Your task to perform on an android device: turn on location history Image 0: 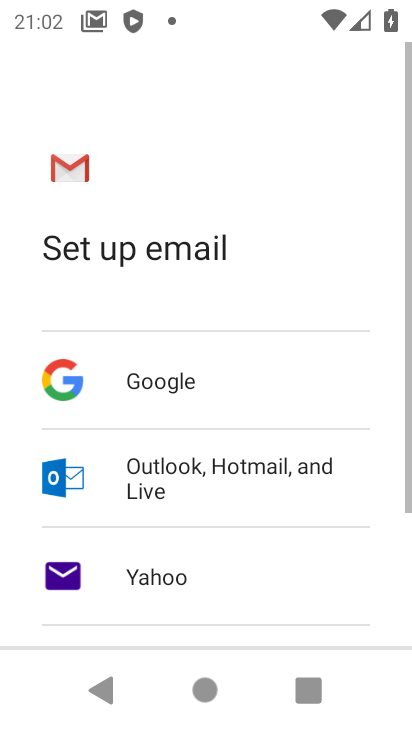
Step 0: press home button
Your task to perform on an android device: turn on location history Image 1: 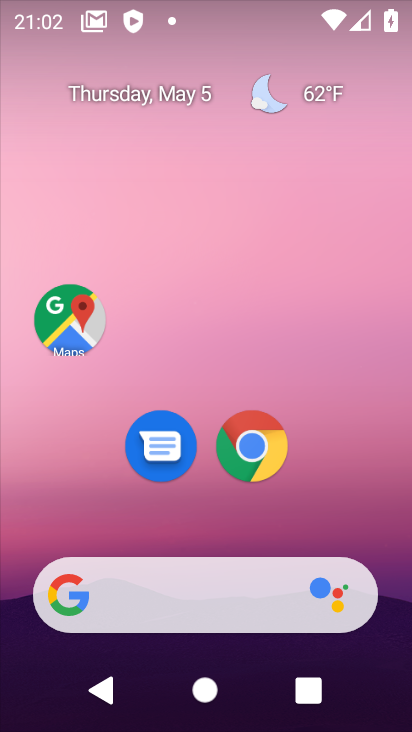
Step 1: drag from (303, 628) to (334, 95)
Your task to perform on an android device: turn on location history Image 2: 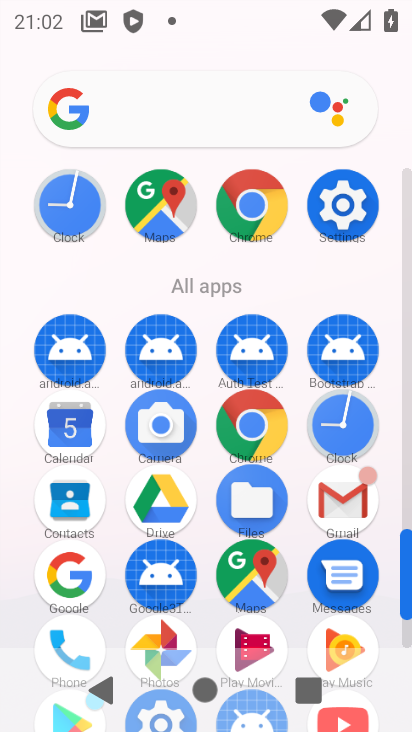
Step 2: click (335, 217)
Your task to perform on an android device: turn on location history Image 3: 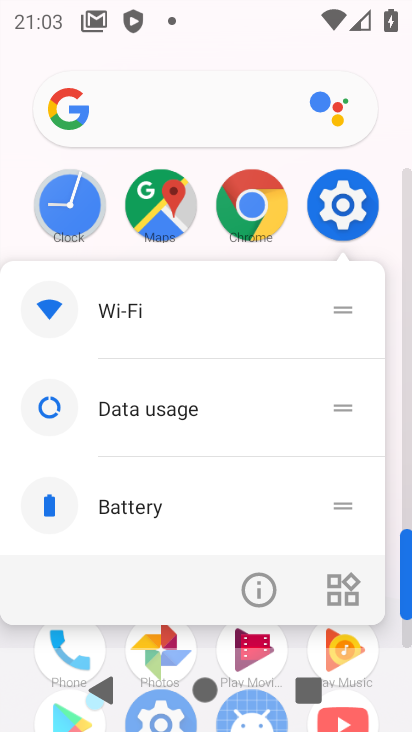
Step 3: click (351, 191)
Your task to perform on an android device: turn on location history Image 4: 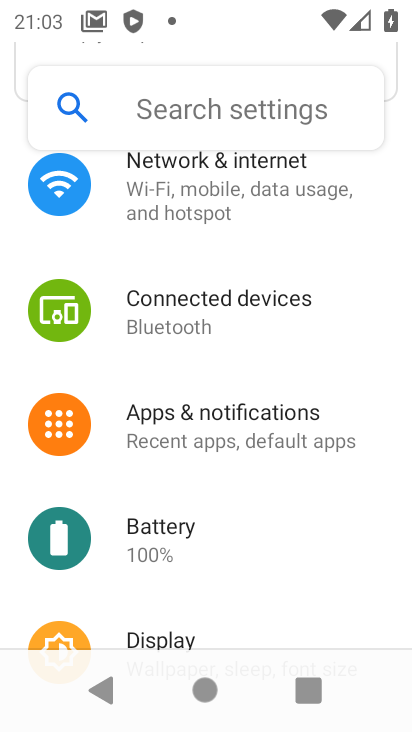
Step 4: click (215, 111)
Your task to perform on an android device: turn on location history Image 5: 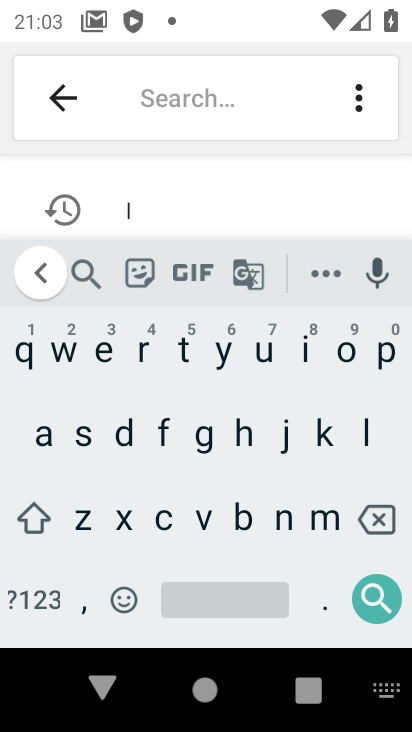
Step 5: click (227, 220)
Your task to perform on an android device: turn on location history Image 6: 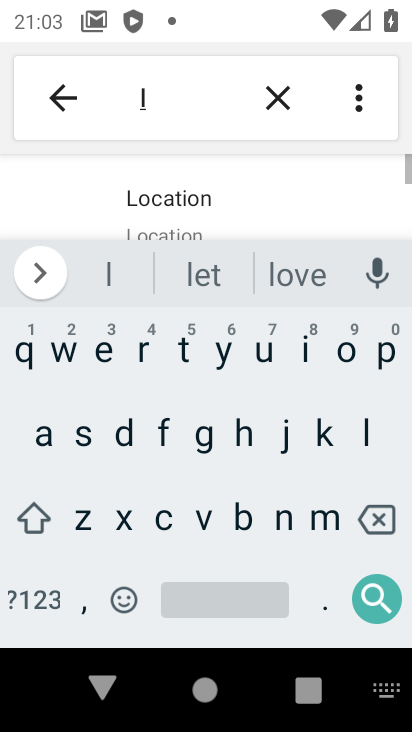
Step 6: click (217, 213)
Your task to perform on an android device: turn on location history Image 7: 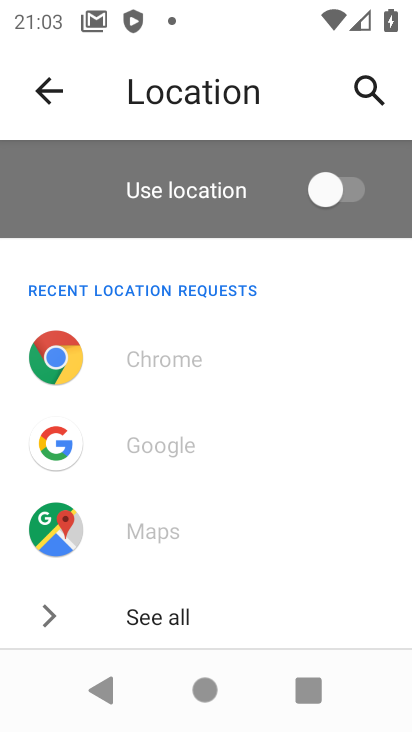
Step 7: drag from (200, 532) to (258, 279)
Your task to perform on an android device: turn on location history Image 8: 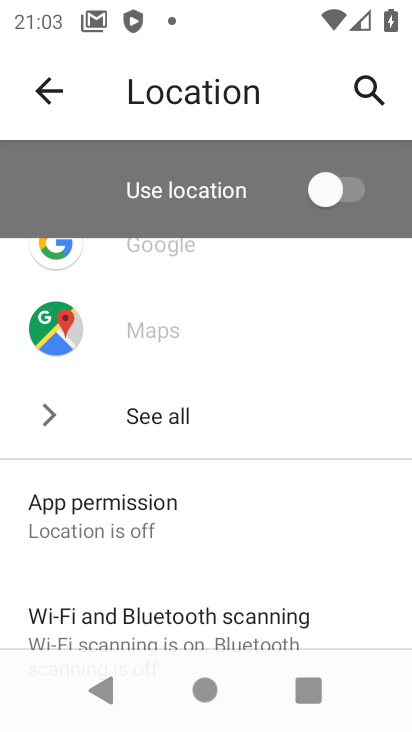
Step 8: drag from (202, 520) to (258, 254)
Your task to perform on an android device: turn on location history Image 9: 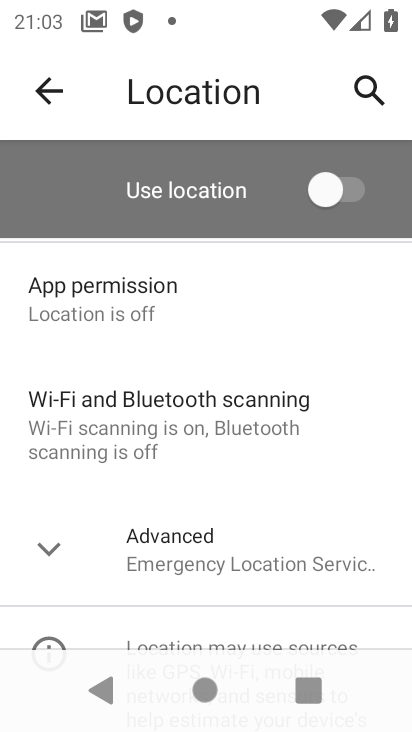
Step 9: click (220, 543)
Your task to perform on an android device: turn on location history Image 10: 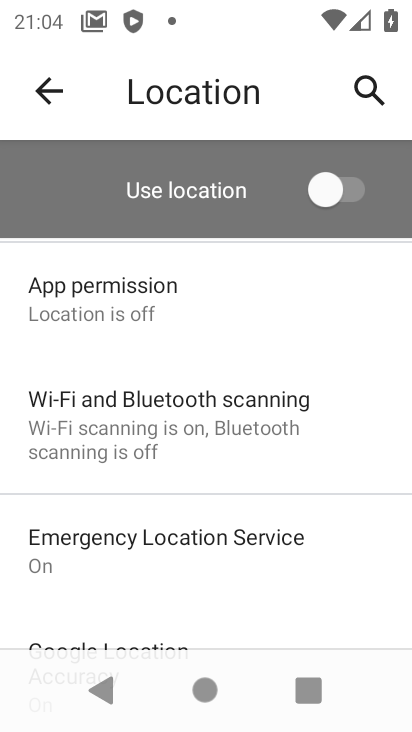
Step 10: drag from (175, 592) to (227, 465)
Your task to perform on an android device: turn on location history Image 11: 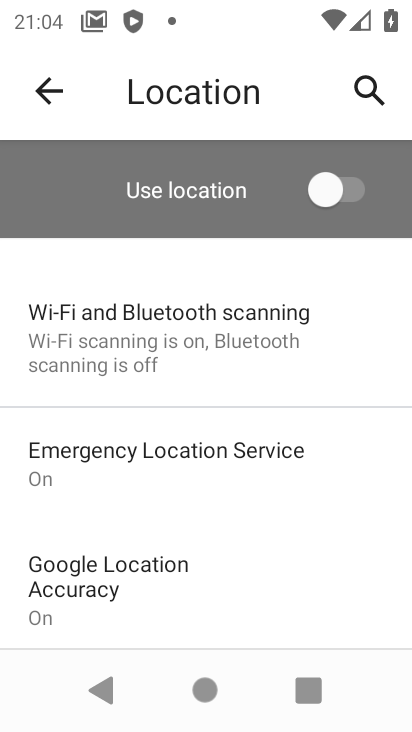
Step 11: drag from (210, 488) to (162, 619)
Your task to perform on an android device: turn on location history Image 12: 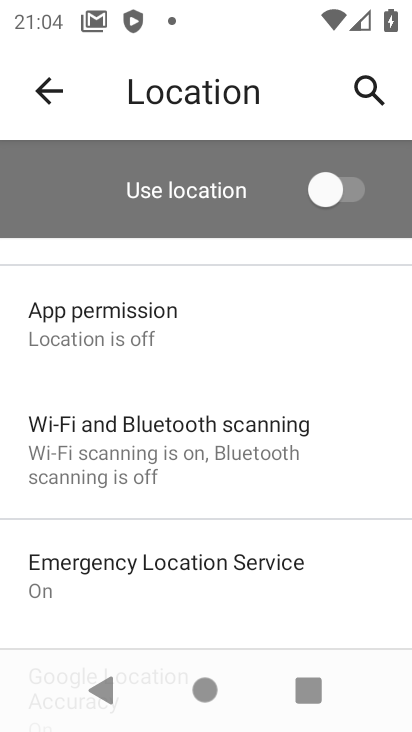
Step 12: drag from (247, 388) to (286, 235)
Your task to perform on an android device: turn on location history Image 13: 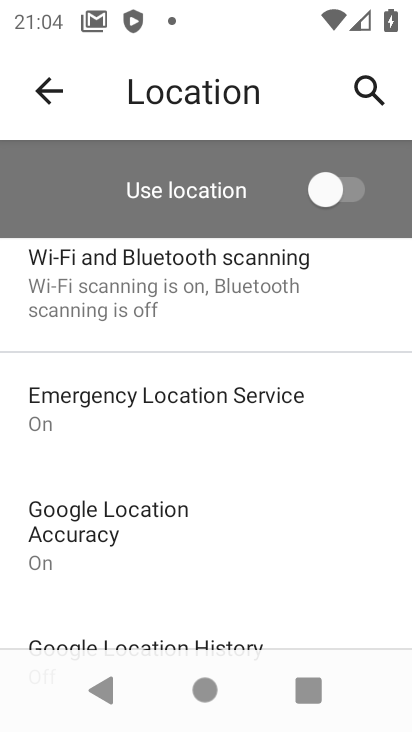
Step 13: drag from (170, 568) to (205, 486)
Your task to perform on an android device: turn on location history Image 14: 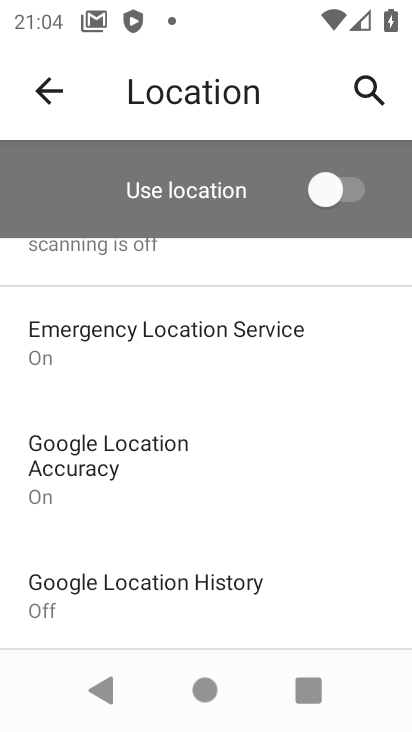
Step 14: click (147, 586)
Your task to perform on an android device: turn on location history Image 15: 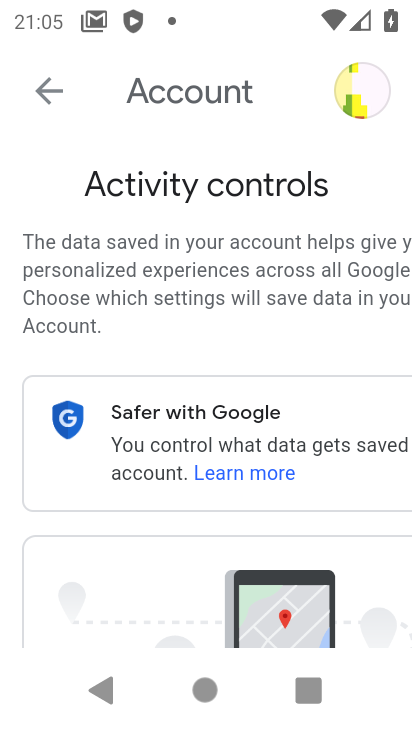
Step 15: task complete